Your task to perform on an android device: toggle sleep mode Image 0: 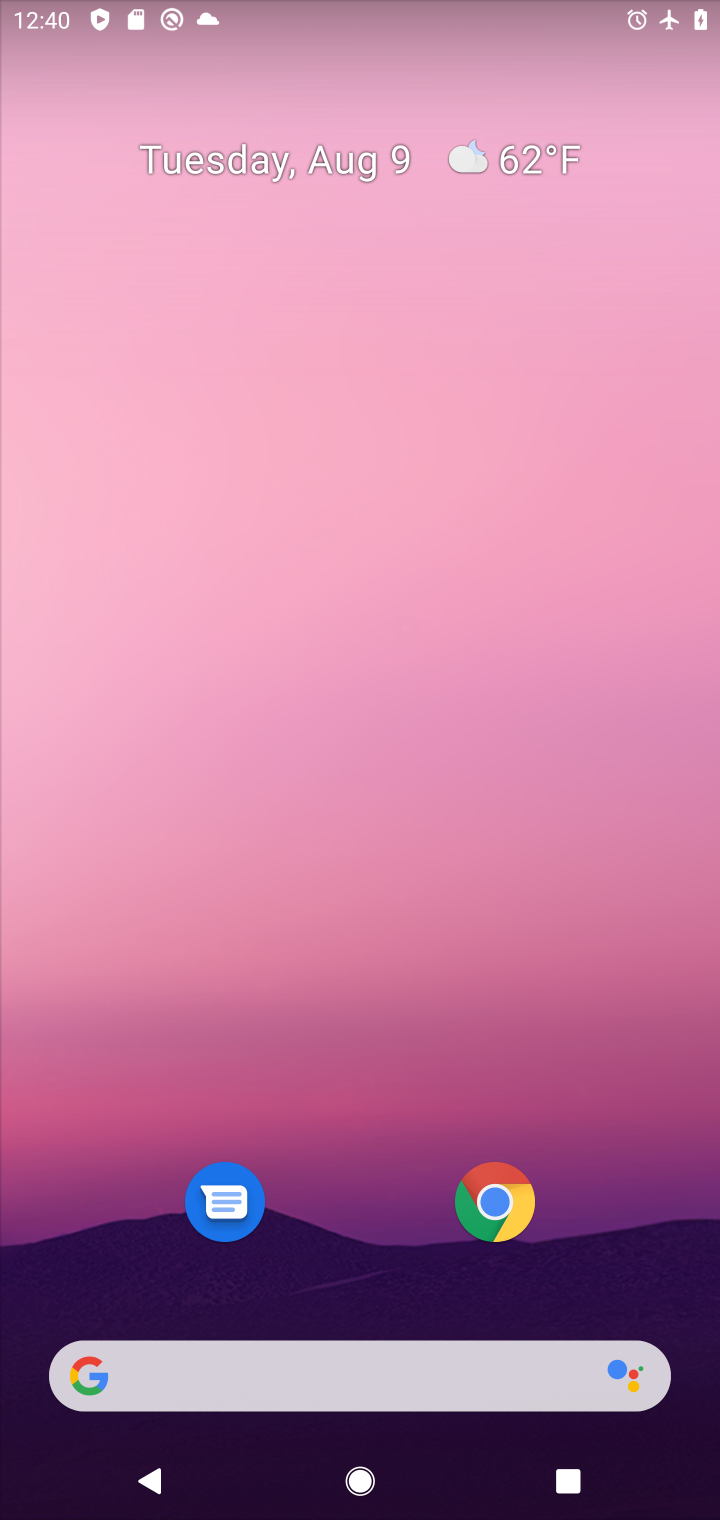
Step 0: click (417, 410)
Your task to perform on an android device: toggle sleep mode Image 1: 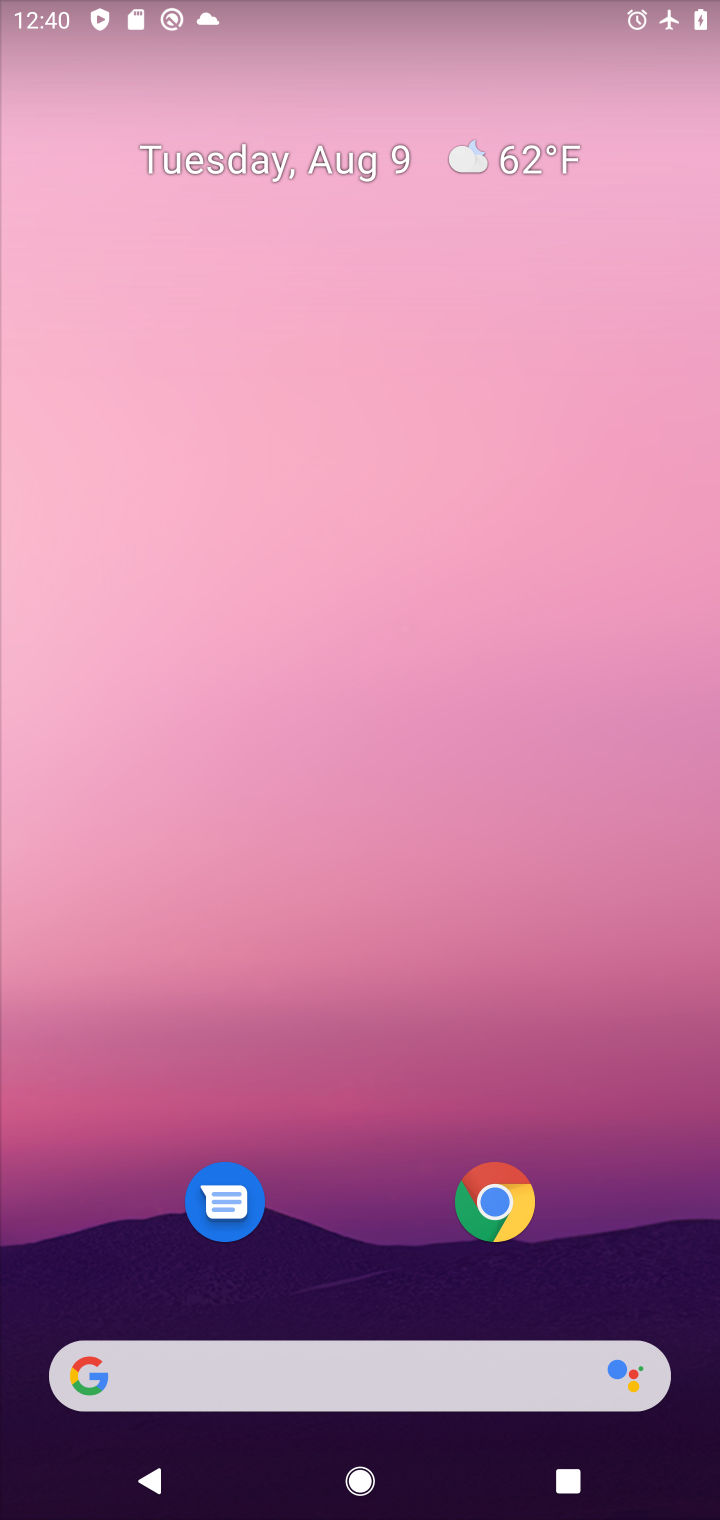
Step 1: task complete